Your task to perform on an android device: toggle airplane mode Image 0: 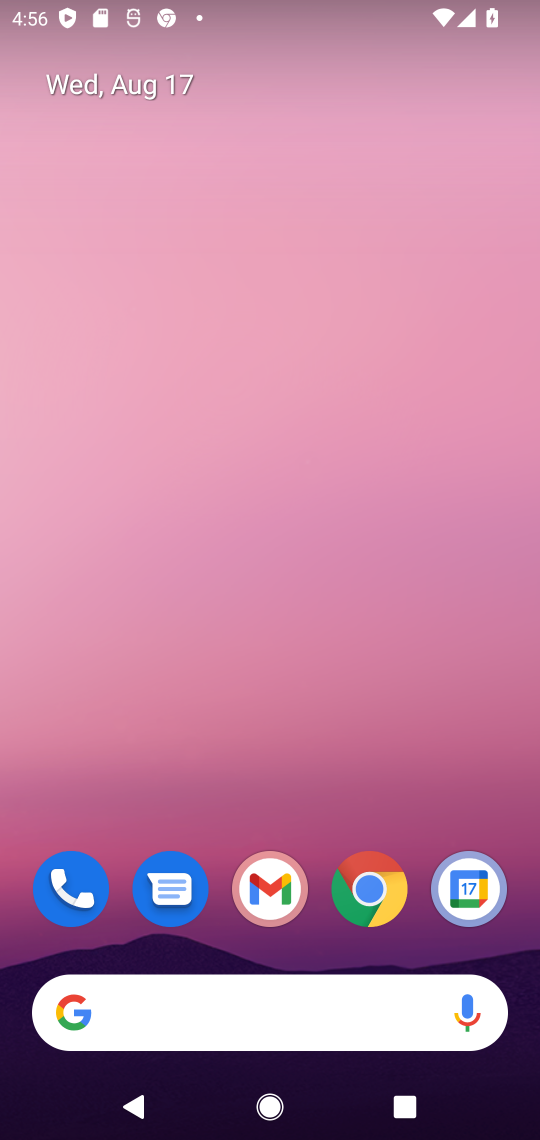
Step 0: drag from (318, 823) to (260, 184)
Your task to perform on an android device: toggle airplane mode Image 1: 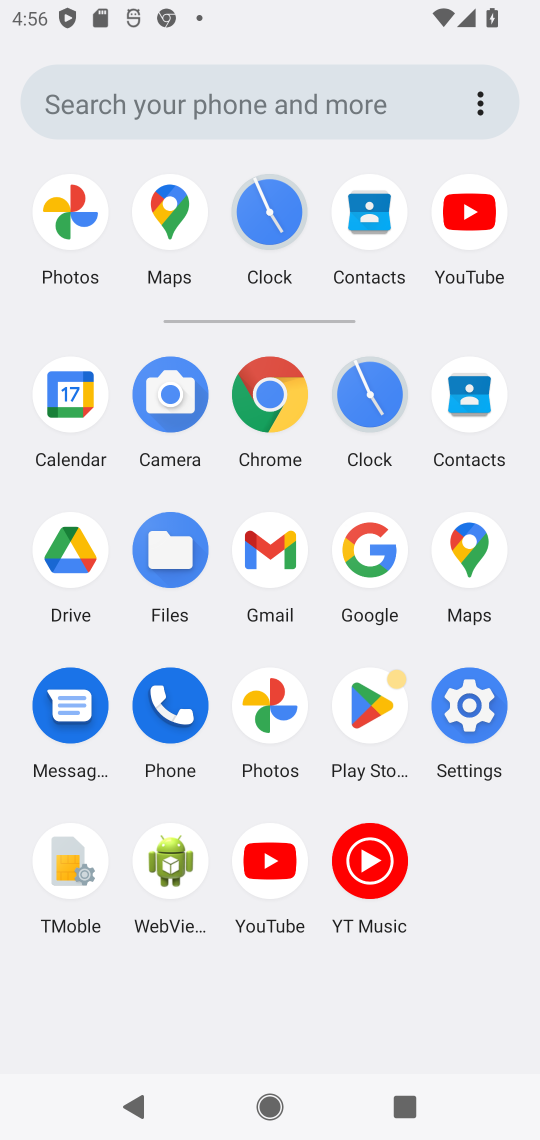
Step 1: click (468, 707)
Your task to perform on an android device: toggle airplane mode Image 2: 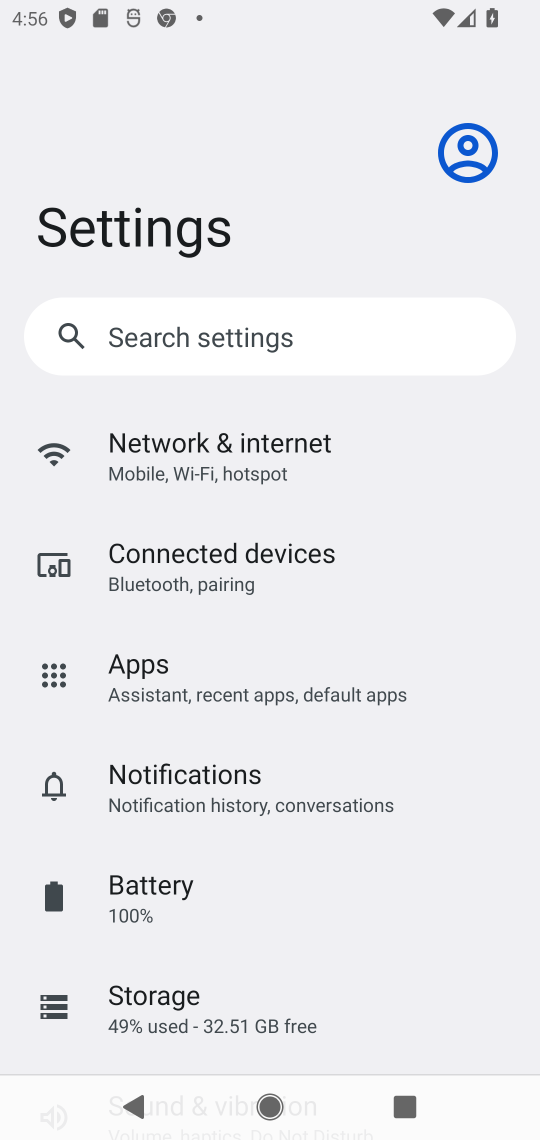
Step 2: click (211, 434)
Your task to perform on an android device: toggle airplane mode Image 3: 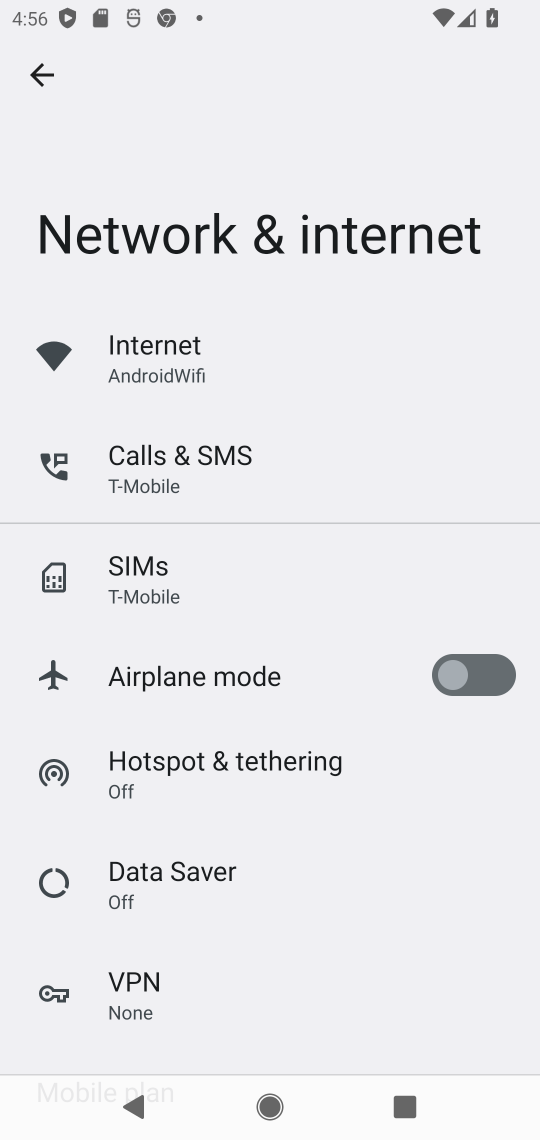
Step 3: click (468, 650)
Your task to perform on an android device: toggle airplane mode Image 4: 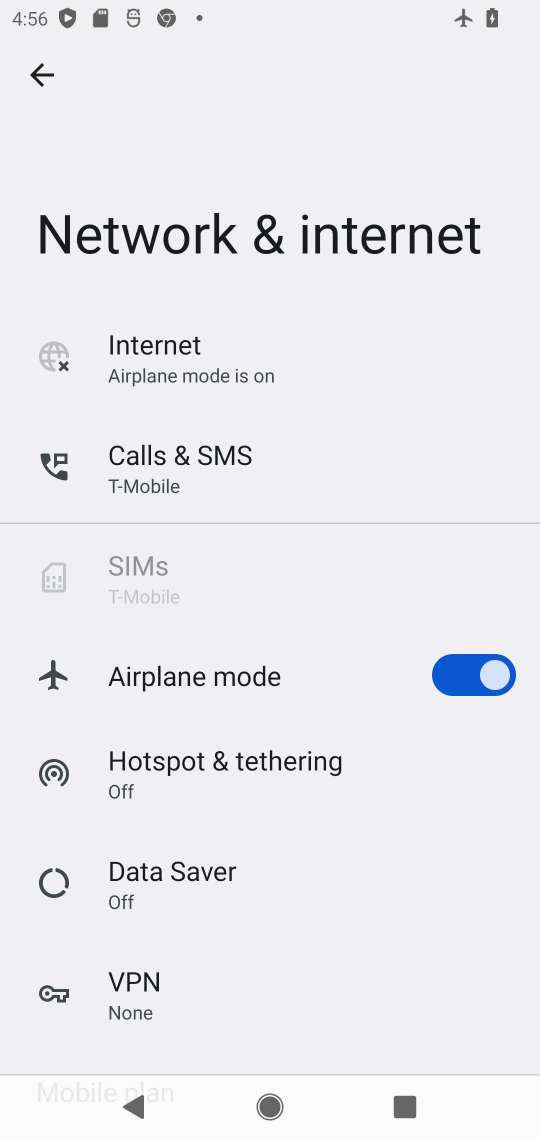
Step 4: task complete